Your task to perform on an android device: toggle notification dots Image 0: 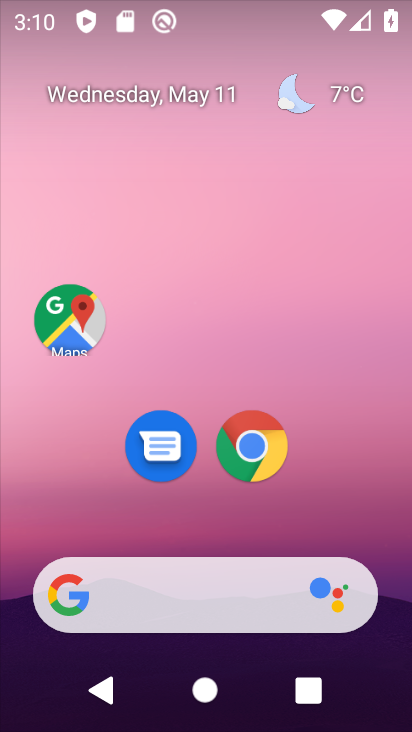
Step 0: drag from (350, 636) to (257, 193)
Your task to perform on an android device: toggle notification dots Image 1: 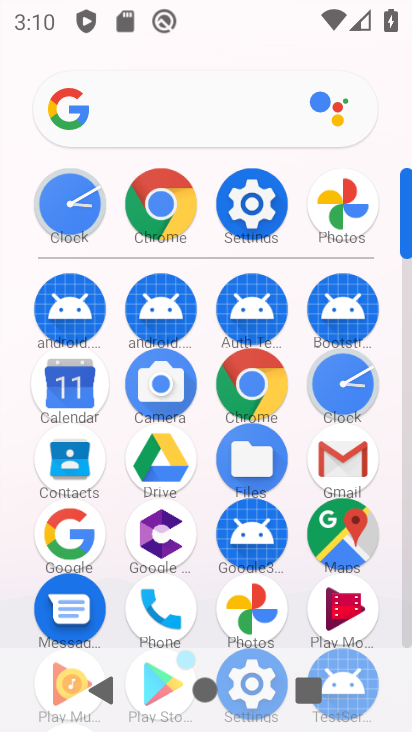
Step 1: click (244, 205)
Your task to perform on an android device: toggle notification dots Image 2: 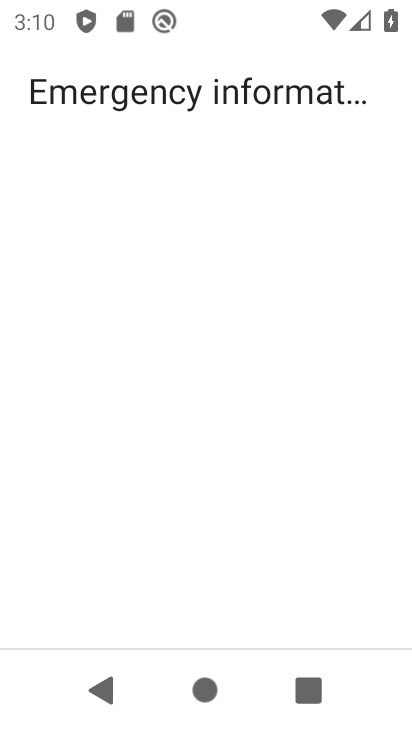
Step 2: click (243, 204)
Your task to perform on an android device: toggle notification dots Image 3: 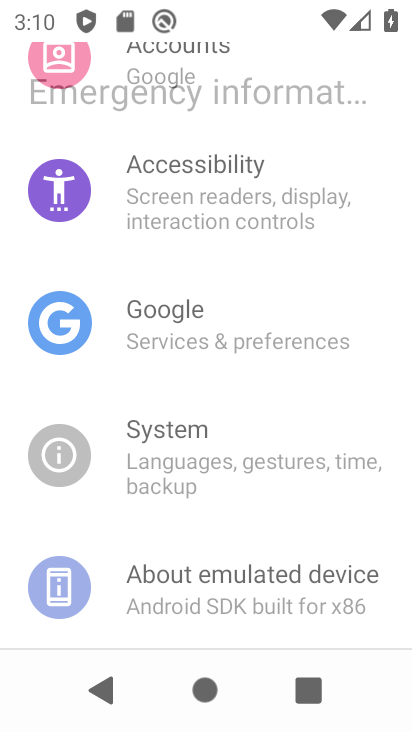
Step 3: click (243, 204)
Your task to perform on an android device: toggle notification dots Image 4: 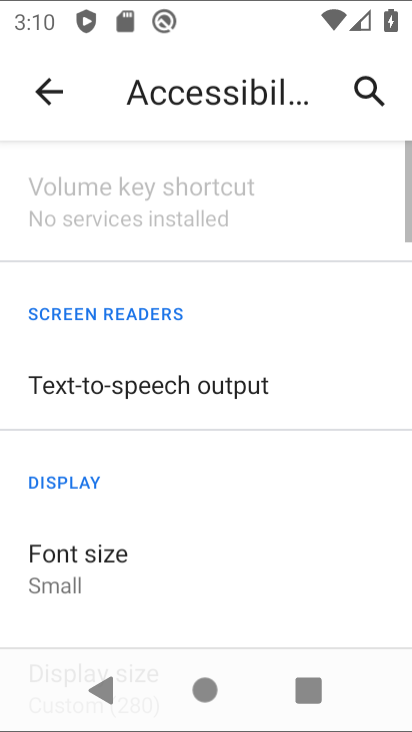
Step 4: drag from (210, 199) to (326, 715)
Your task to perform on an android device: toggle notification dots Image 5: 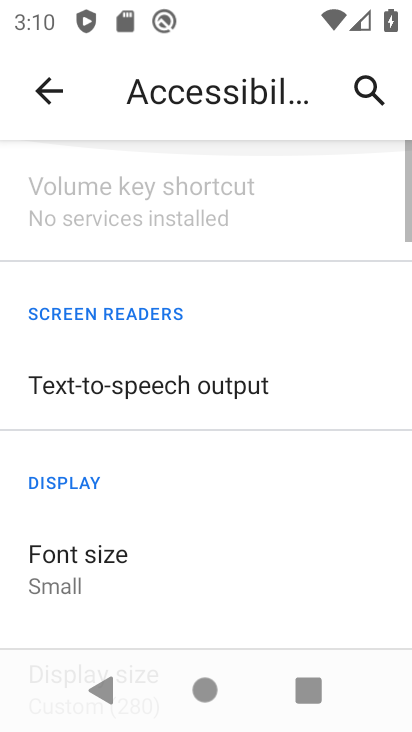
Step 5: drag from (267, 305) to (292, 699)
Your task to perform on an android device: toggle notification dots Image 6: 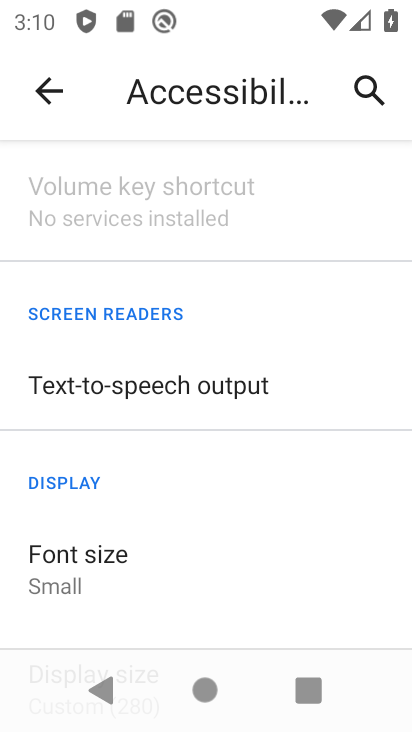
Step 6: drag from (251, 595) to (206, 221)
Your task to perform on an android device: toggle notification dots Image 7: 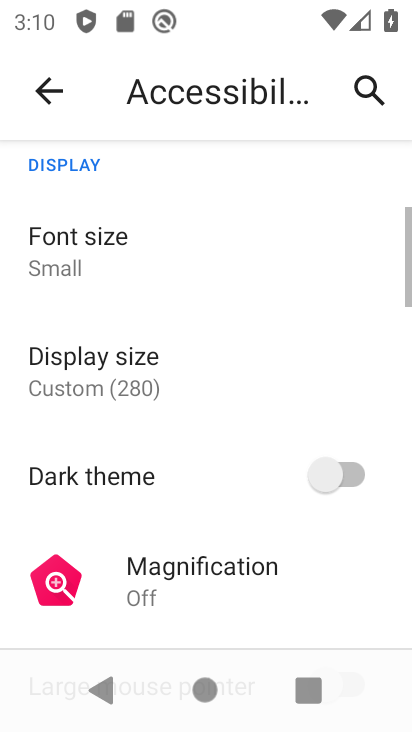
Step 7: click (43, 101)
Your task to perform on an android device: toggle notification dots Image 8: 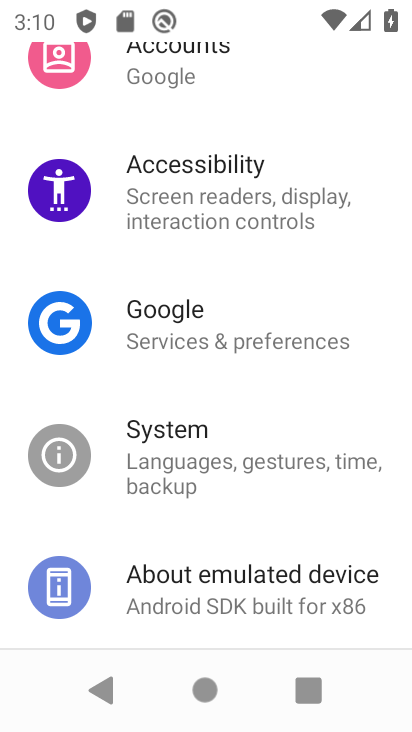
Step 8: drag from (202, 497) to (165, 225)
Your task to perform on an android device: toggle notification dots Image 9: 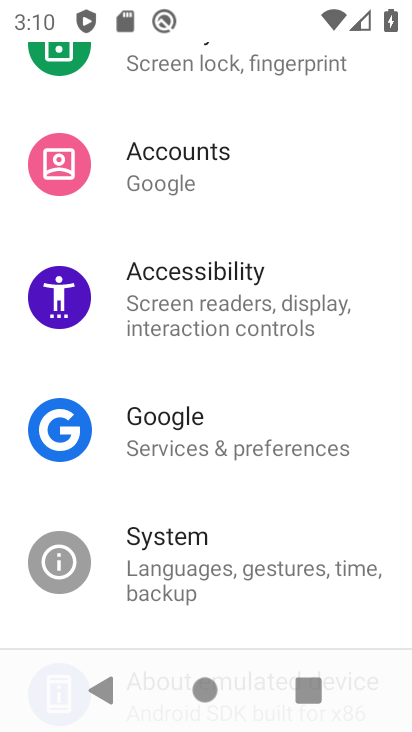
Step 9: drag from (213, 482) to (176, 136)
Your task to perform on an android device: toggle notification dots Image 10: 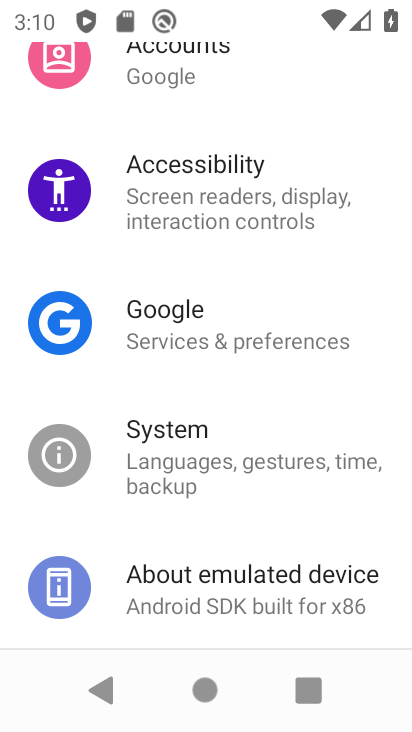
Step 10: drag from (189, 198) to (249, 577)
Your task to perform on an android device: toggle notification dots Image 11: 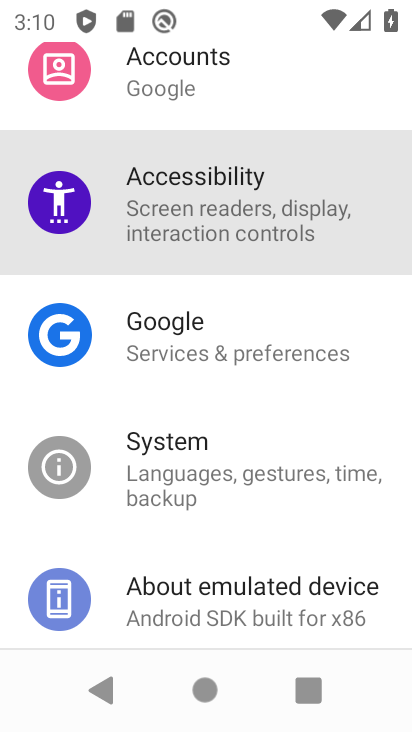
Step 11: drag from (177, 203) to (251, 689)
Your task to perform on an android device: toggle notification dots Image 12: 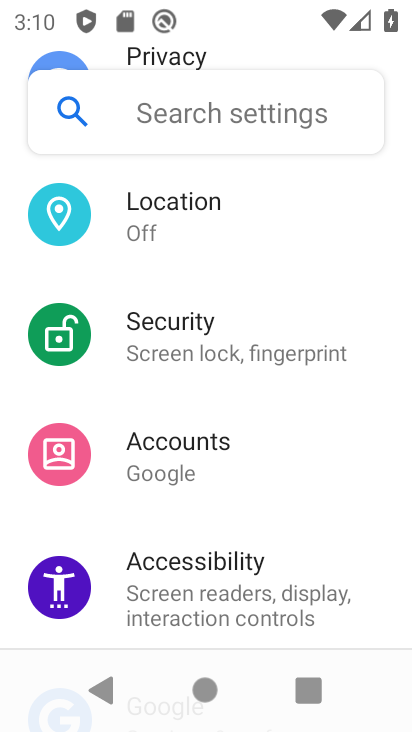
Step 12: drag from (179, 281) to (201, 668)
Your task to perform on an android device: toggle notification dots Image 13: 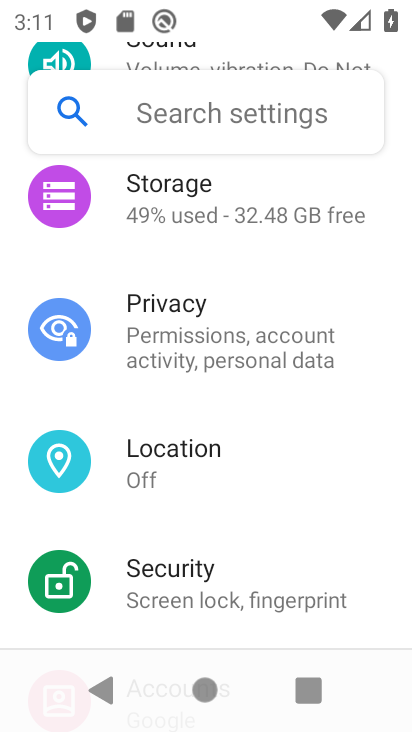
Step 13: drag from (141, 276) to (168, 629)
Your task to perform on an android device: toggle notification dots Image 14: 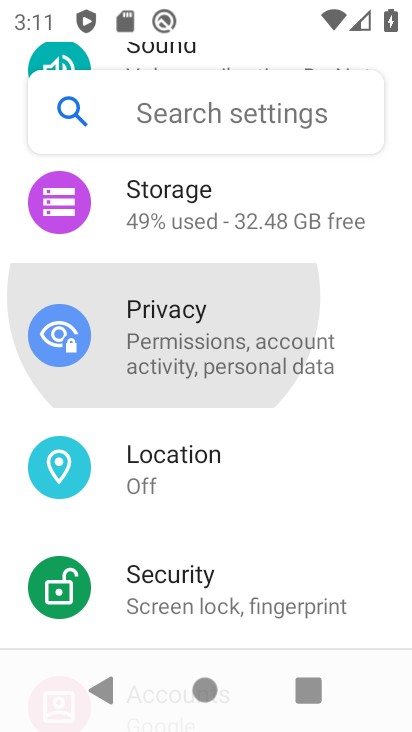
Step 14: drag from (190, 292) to (222, 659)
Your task to perform on an android device: toggle notification dots Image 15: 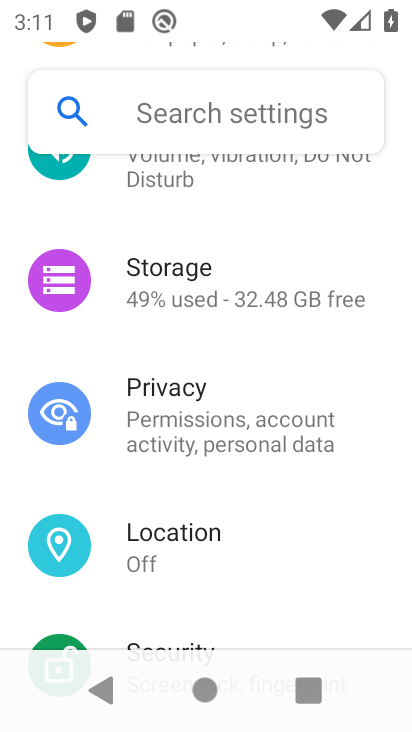
Step 15: drag from (207, 256) to (263, 685)
Your task to perform on an android device: toggle notification dots Image 16: 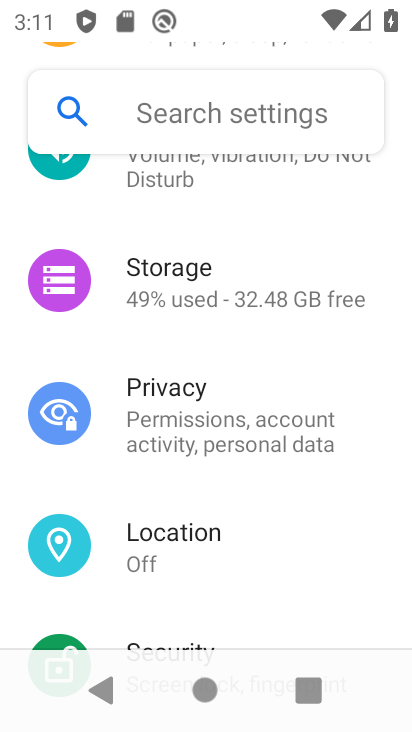
Step 16: drag from (198, 197) to (229, 635)
Your task to perform on an android device: toggle notification dots Image 17: 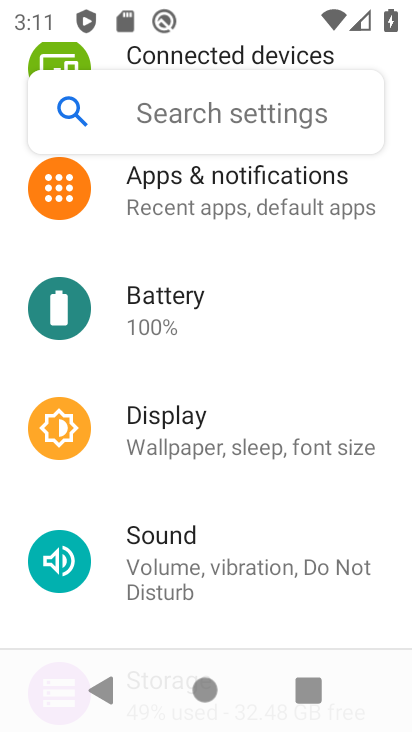
Step 17: drag from (201, 343) to (232, 609)
Your task to perform on an android device: toggle notification dots Image 18: 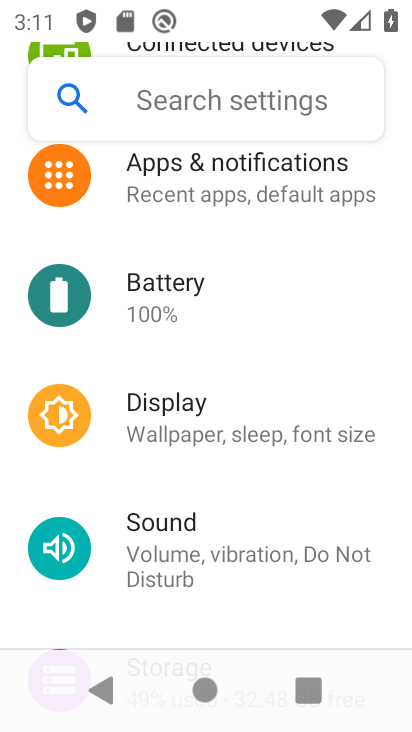
Step 18: drag from (173, 258) to (202, 656)
Your task to perform on an android device: toggle notification dots Image 19: 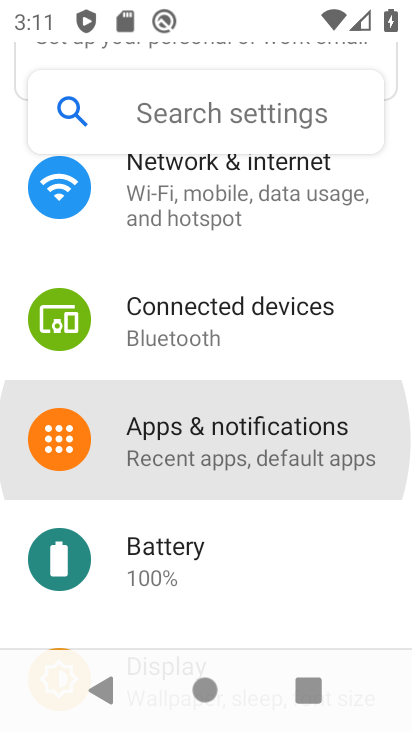
Step 19: click (146, 378)
Your task to perform on an android device: toggle notification dots Image 20: 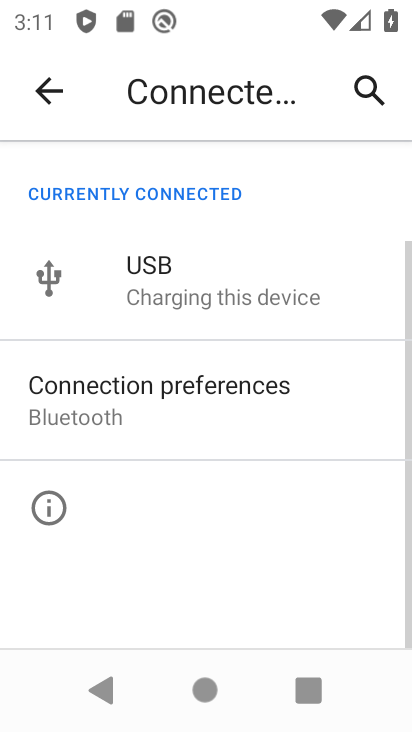
Step 20: click (46, 92)
Your task to perform on an android device: toggle notification dots Image 21: 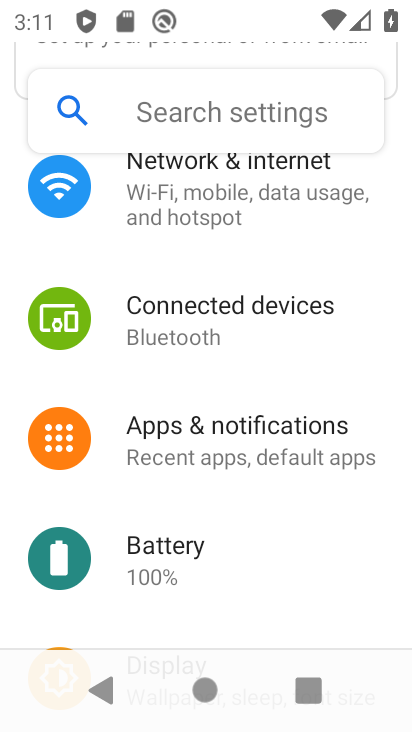
Step 21: click (251, 446)
Your task to perform on an android device: toggle notification dots Image 22: 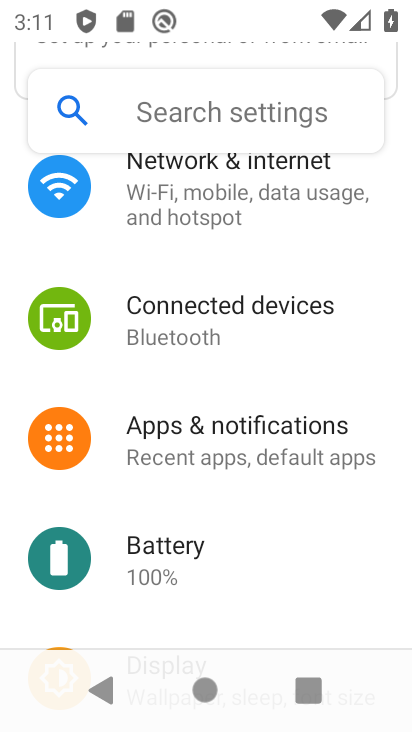
Step 22: click (251, 446)
Your task to perform on an android device: toggle notification dots Image 23: 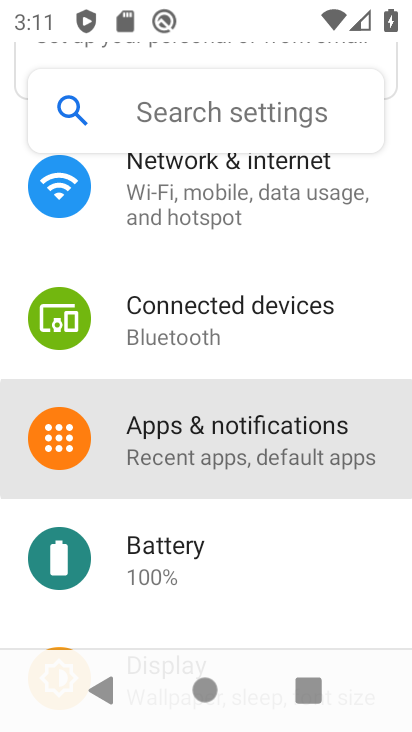
Step 23: click (251, 446)
Your task to perform on an android device: toggle notification dots Image 24: 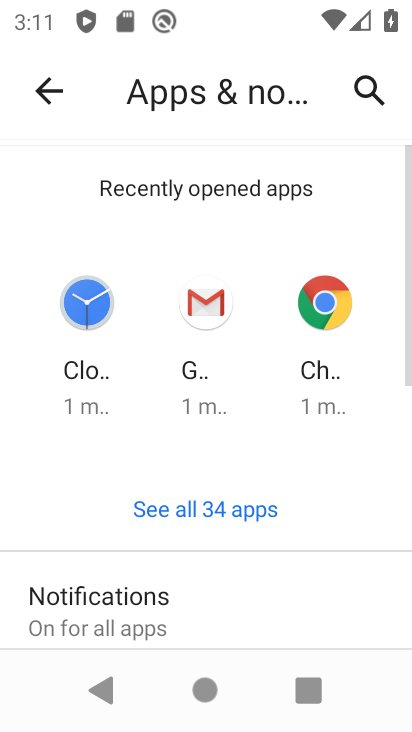
Step 24: drag from (234, 584) to (131, 192)
Your task to perform on an android device: toggle notification dots Image 25: 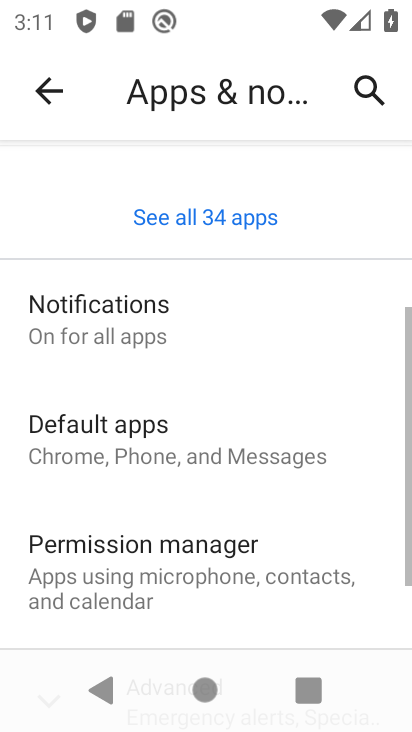
Step 25: drag from (213, 543) to (162, 108)
Your task to perform on an android device: toggle notification dots Image 26: 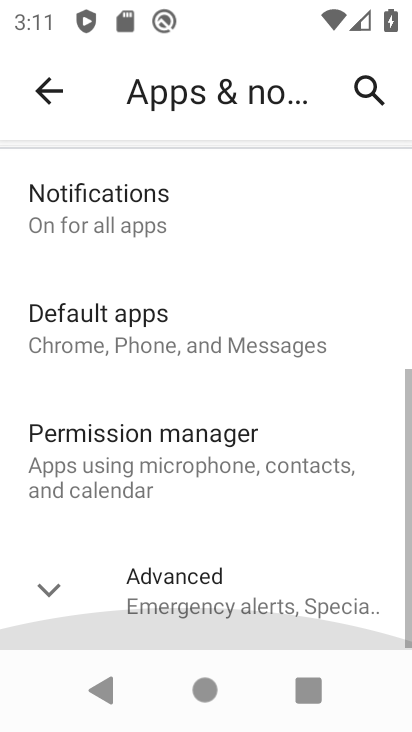
Step 26: drag from (243, 515) to (165, 157)
Your task to perform on an android device: toggle notification dots Image 27: 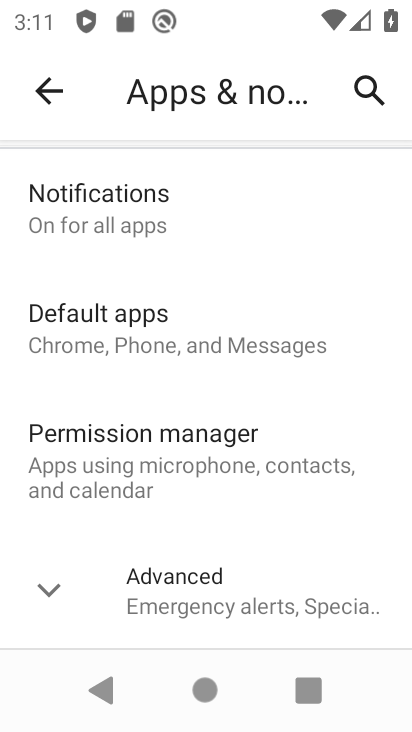
Step 27: click (194, 594)
Your task to perform on an android device: toggle notification dots Image 28: 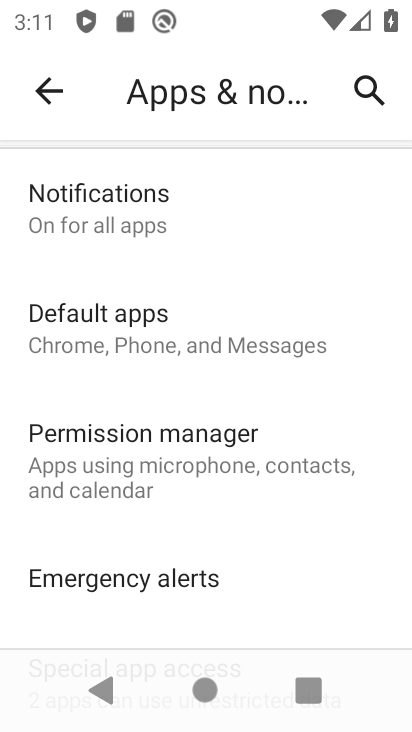
Step 28: click (98, 235)
Your task to perform on an android device: toggle notification dots Image 29: 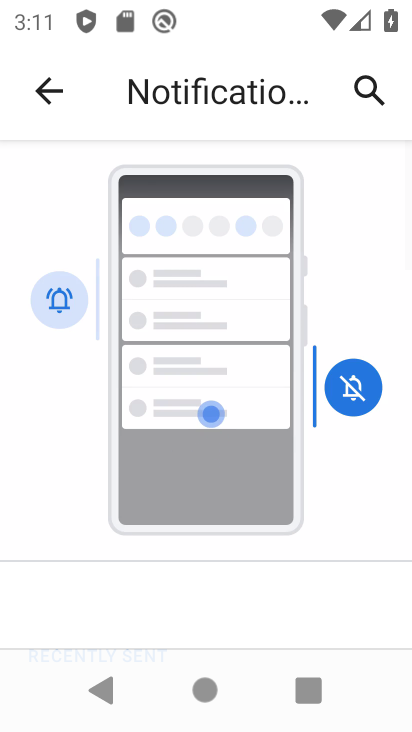
Step 29: drag from (248, 510) to (246, 89)
Your task to perform on an android device: toggle notification dots Image 30: 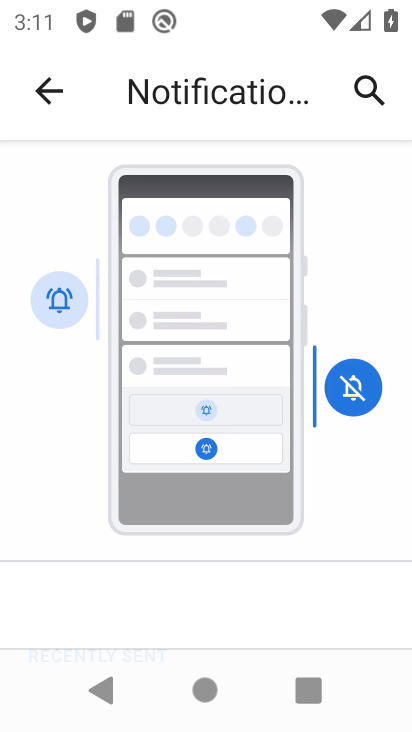
Step 30: drag from (212, 484) to (220, 238)
Your task to perform on an android device: toggle notification dots Image 31: 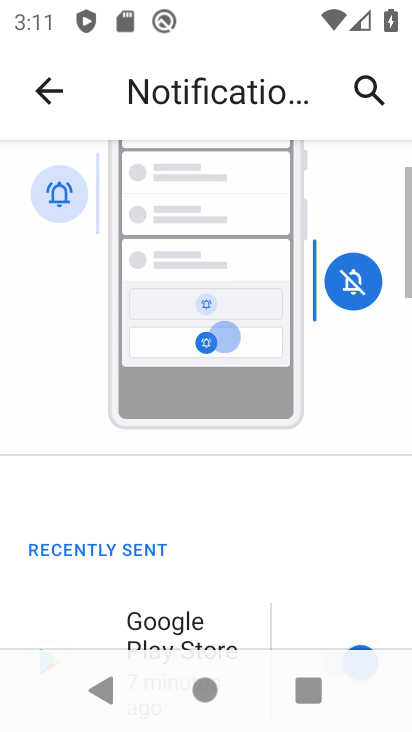
Step 31: drag from (306, 546) to (252, 269)
Your task to perform on an android device: toggle notification dots Image 32: 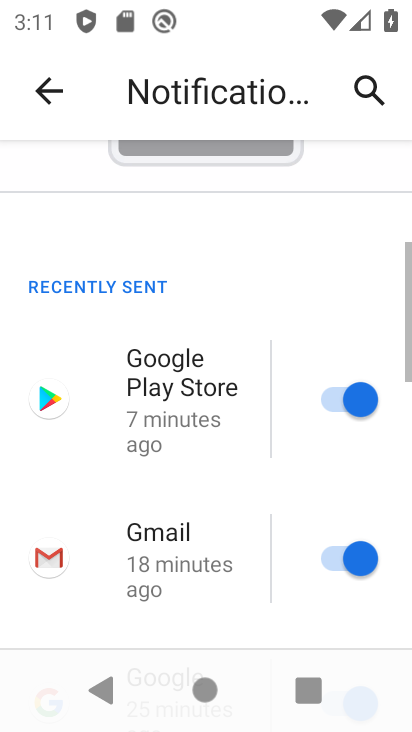
Step 32: drag from (349, 530) to (314, 210)
Your task to perform on an android device: toggle notification dots Image 33: 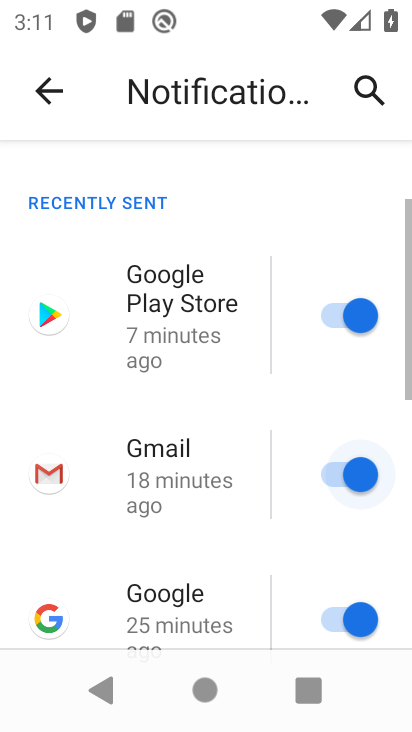
Step 33: drag from (263, 468) to (229, 252)
Your task to perform on an android device: toggle notification dots Image 34: 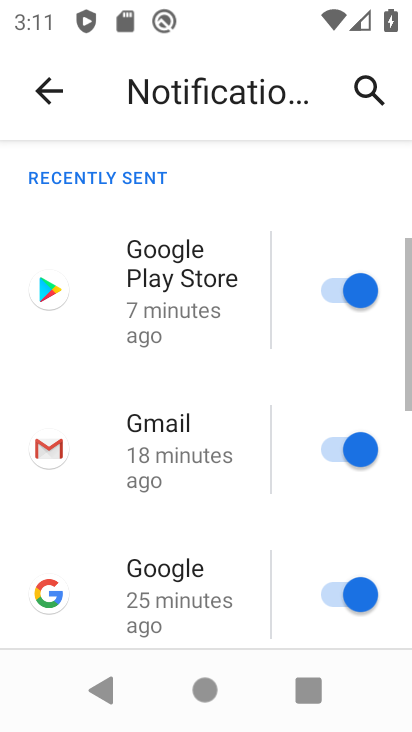
Step 34: drag from (169, 444) to (153, 240)
Your task to perform on an android device: toggle notification dots Image 35: 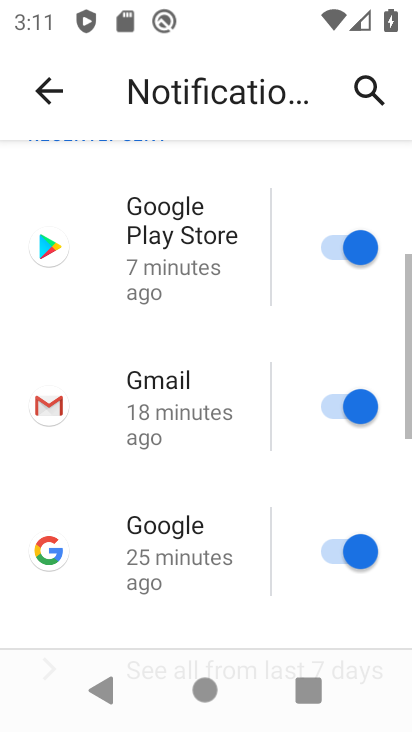
Step 35: drag from (185, 490) to (197, 347)
Your task to perform on an android device: toggle notification dots Image 36: 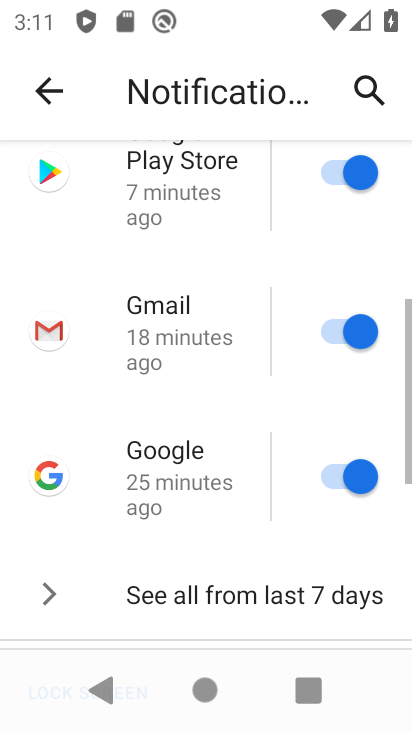
Step 36: drag from (210, 492) to (206, 262)
Your task to perform on an android device: toggle notification dots Image 37: 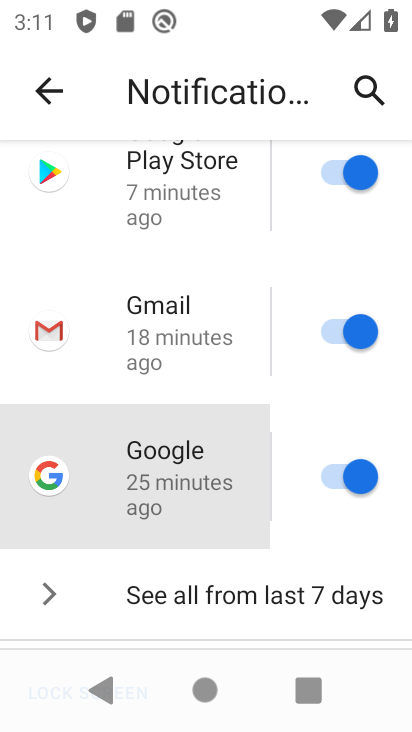
Step 37: drag from (238, 471) to (223, 220)
Your task to perform on an android device: toggle notification dots Image 38: 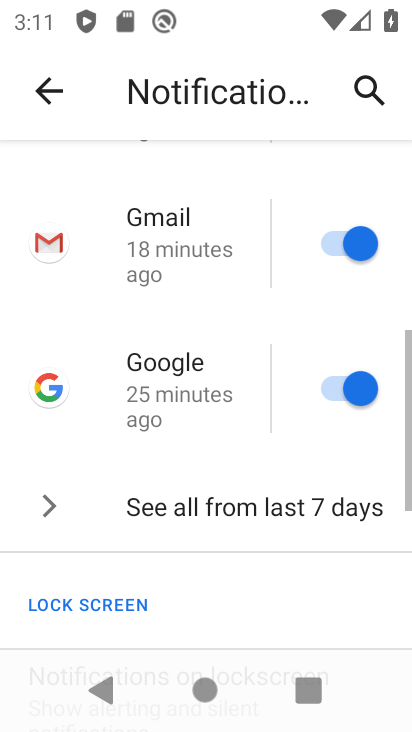
Step 38: drag from (229, 390) to (202, 210)
Your task to perform on an android device: toggle notification dots Image 39: 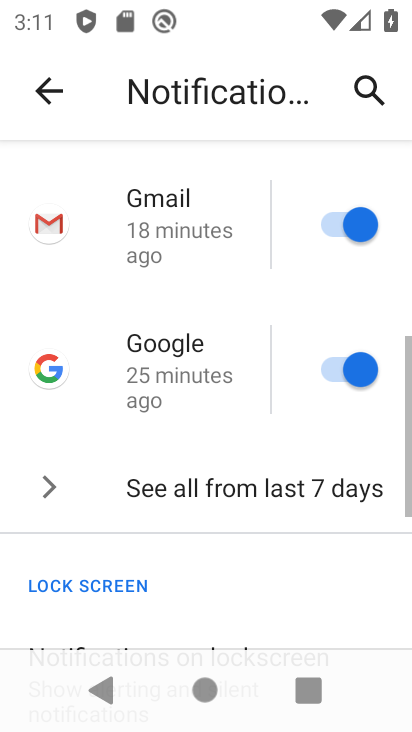
Step 39: drag from (201, 502) to (184, 294)
Your task to perform on an android device: toggle notification dots Image 40: 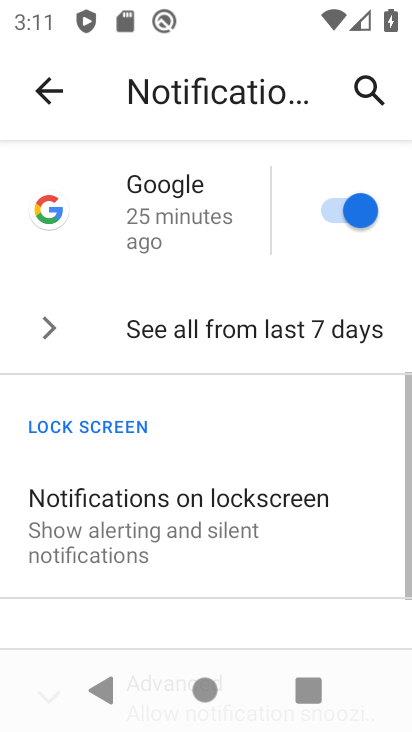
Step 40: drag from (212, 554) to (217, 259)
Your task to perform on an android device: toggle notification dots Image 41: 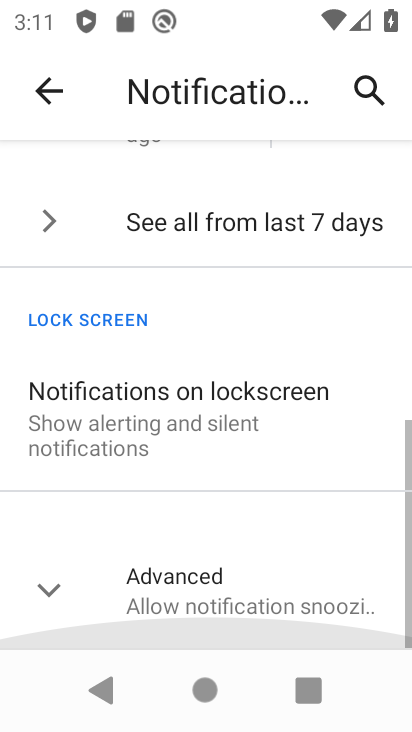
Step 41: drag from (203, 521) to (205, 240)
Your task to perform on an android device: toggle notification dots Image 42: 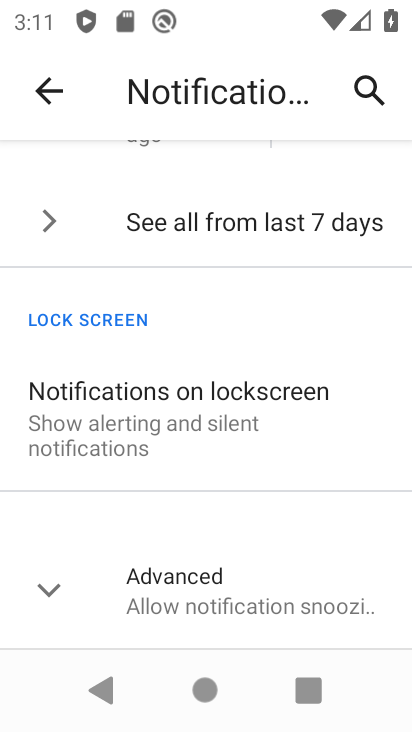
Step 42: click (197, 595)
Your task to perform on an android device: toggle notification dots Image 43: 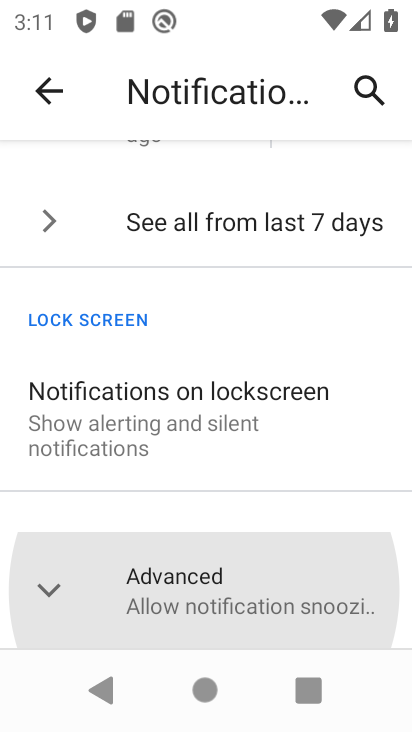
Step 43: click (196, 595)
Your task to perform on an android device: toggle notification dots Image 44: 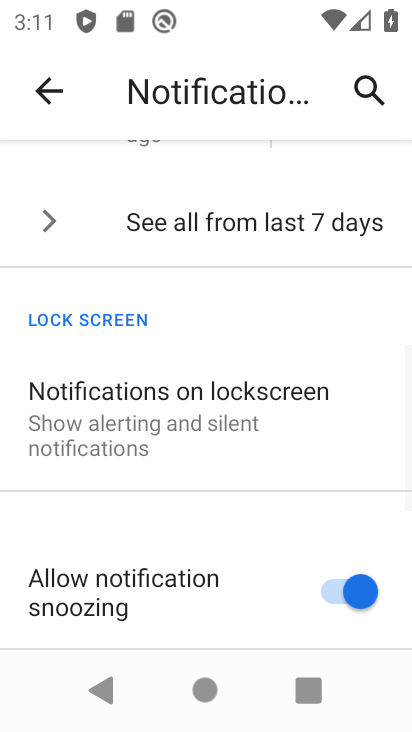
Step 44: click (177, 605)
Your task to perform on an android device: toggle notification dots Image 45: 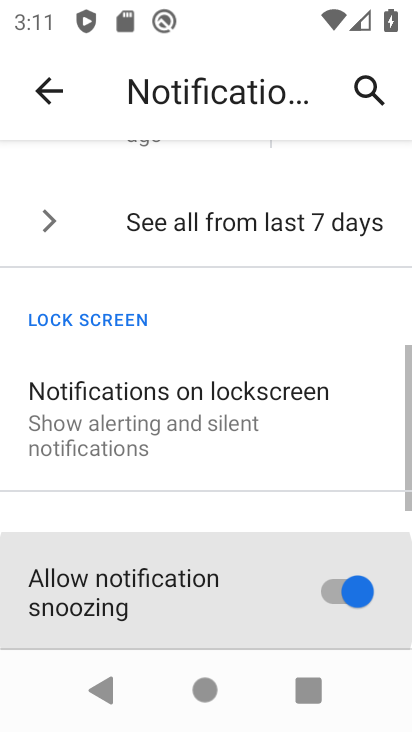
Step 45: drag from (218, 571) to (189, 97)
Your task to perform on an android device: toggle notification dots Image 46: 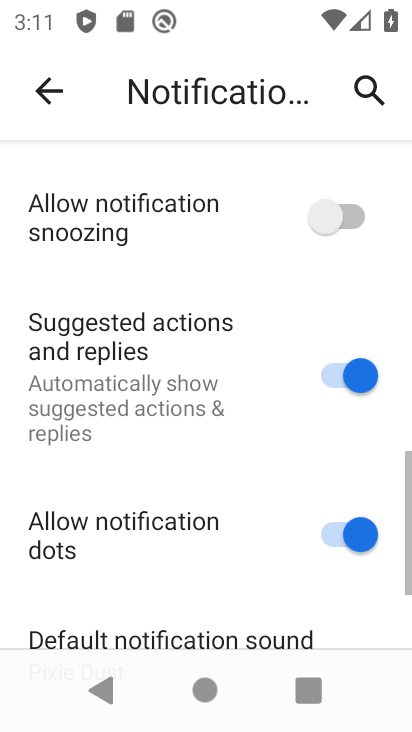
Step 46: drag from (221, 498) to (191, 104)
Your task to perform on an android device: toggle notification dots Image 47: 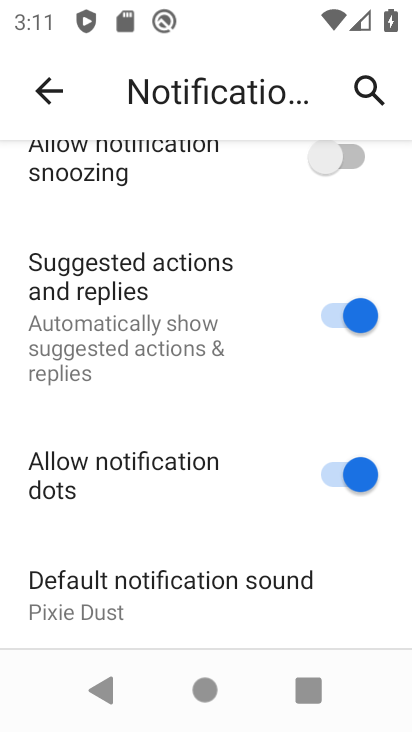
Step 47: click (331, 148)
Your task to perform on an android device: toggle notification dots Image 48: 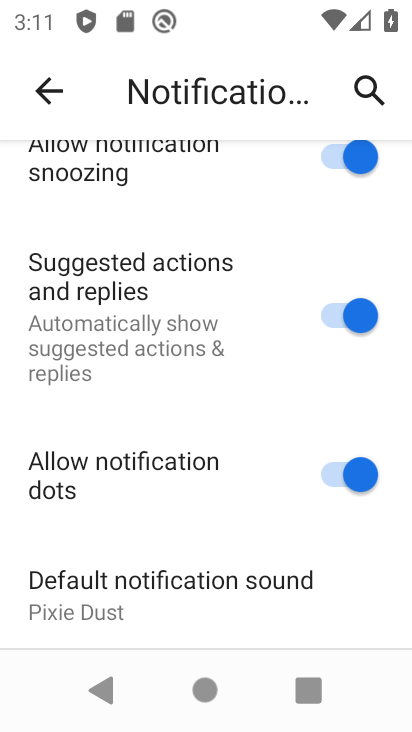
Step 48: click (342, 455)
Your task to perform on an android device: toggle notification dots Image 49: 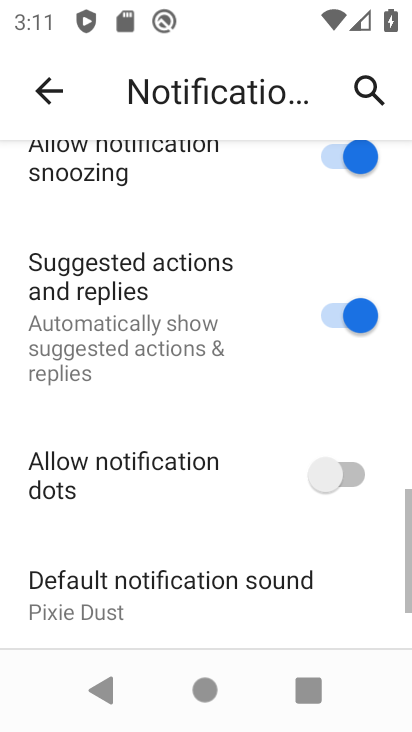
Step 49: task complete